Your task to perform on an android device: delete a single message in the gmail app Image 0: 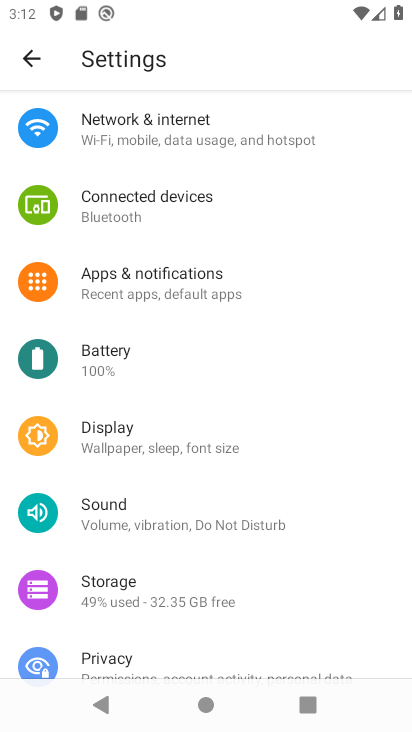
Step 0: press home button
Your task to perform on an android device: delete a single message in the gmail app Image 1: 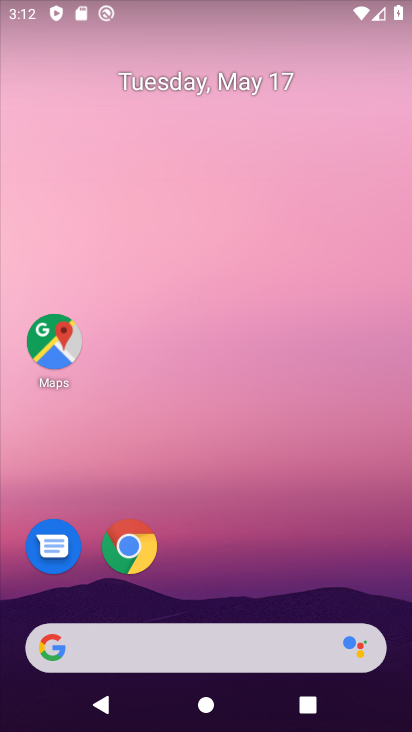
Step 1: drag from (157, 601) to (301, 162)
Your task to perform on an android device: delete a single message in the gmail app Image 2: 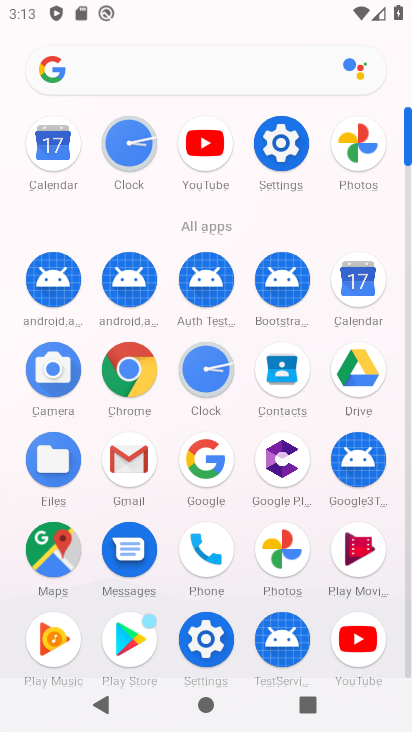
Step 2: click (129, 469)
Your task to perform on an android device: delete a single message in the gmail app Image 3: 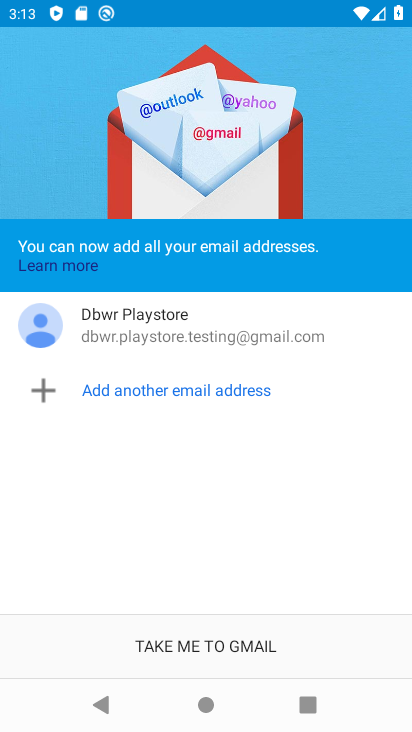
Step 3: click (219, 655)
Your task to perform on an android device: delete a single message in the gmail app Image 4: 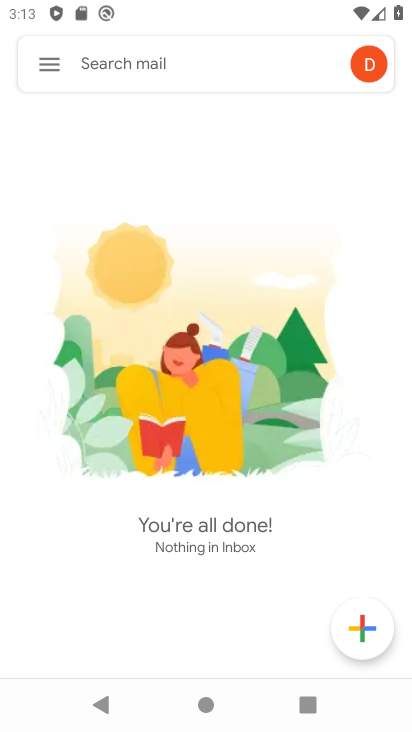
Step 4: click (33, 65)
Your task to perform on an android device: delete a single message in the gmail app Image 5: 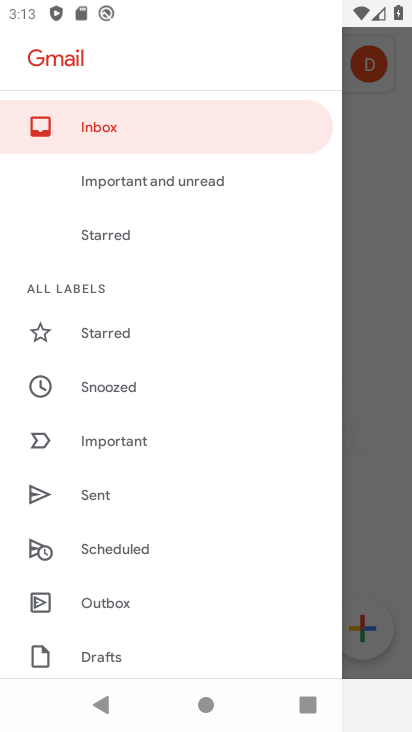
Step 5: drag from (121, 563) to (186, 175)
Your task to perform on an android device: delete a single message in the gmail app Image 6: 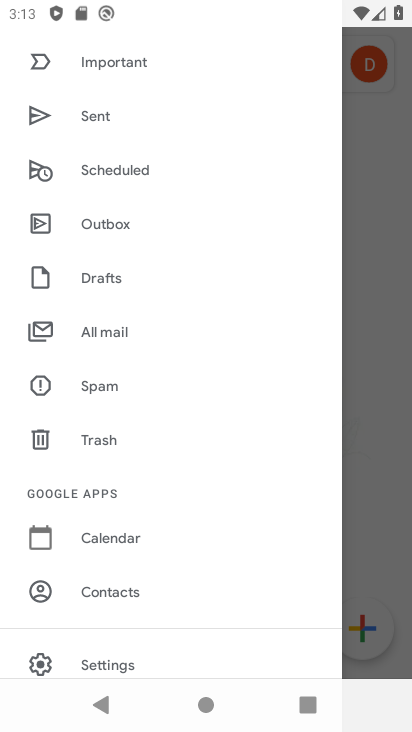
Step 6: click (117, 348)
Your task to perform on an android device: delete a single message in the gmail app Image 7: 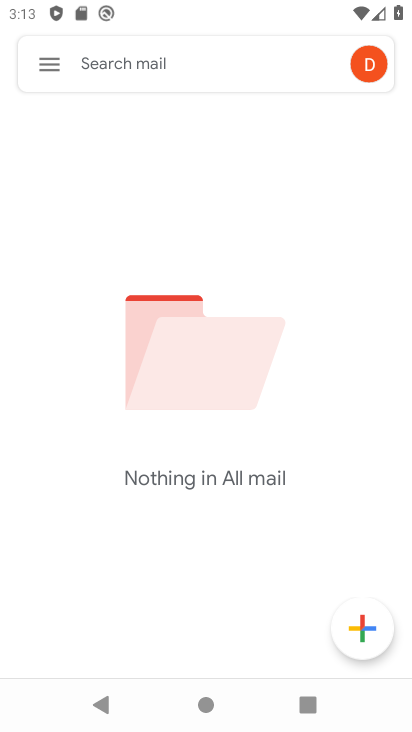
Step 7: task complete